Your task to perform on an android device: Open battery settings Image 0: 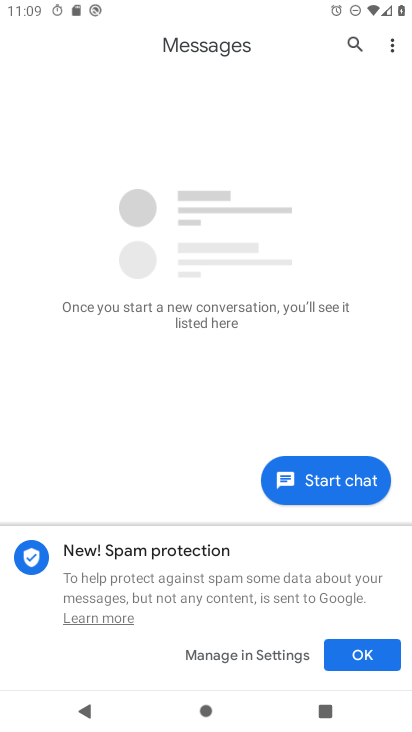
Step 0: press back button
Your task to perform on an android device: Open battery settings Image 1: 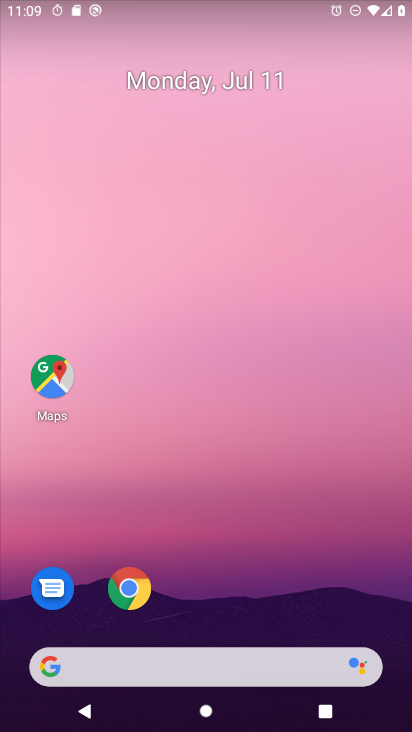
Step 1: drag from (178, 631) to (203, 21)
Your task to perform on an android device: Open battery settings Image 2: 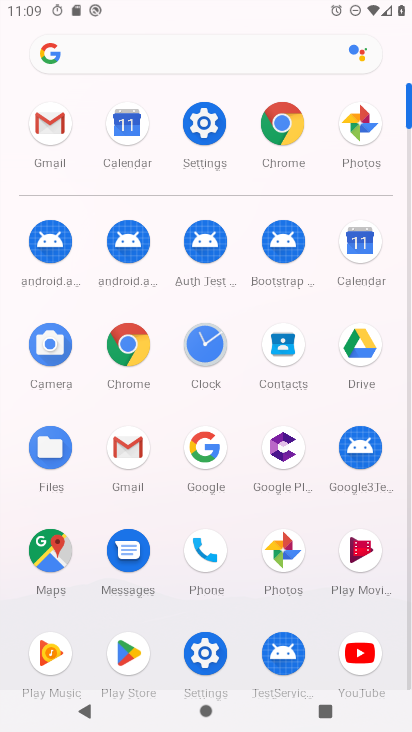
Step 2: click (193, 129)
Your task to perform on an android device: Open battery settings Image 3: 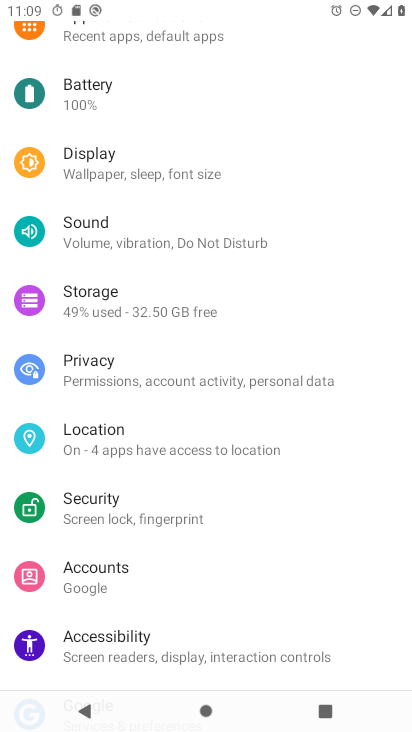
Step 3: click (85, 110)
Your task to perform on an android device: Open battery settings Image 4: 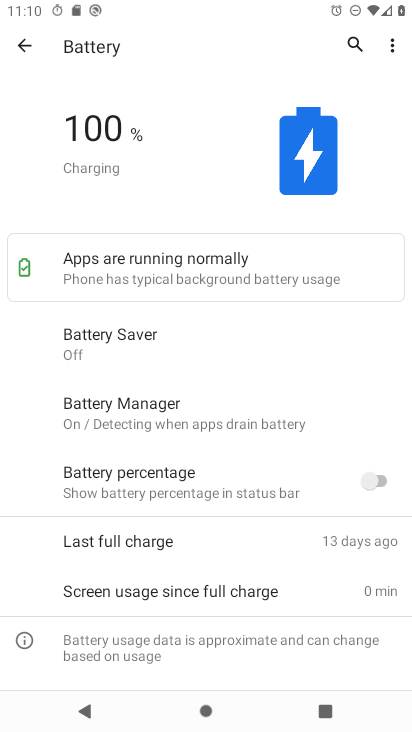
Step 4: task complete